Your task to perform on an android device: turn off airplane mode Image 0: 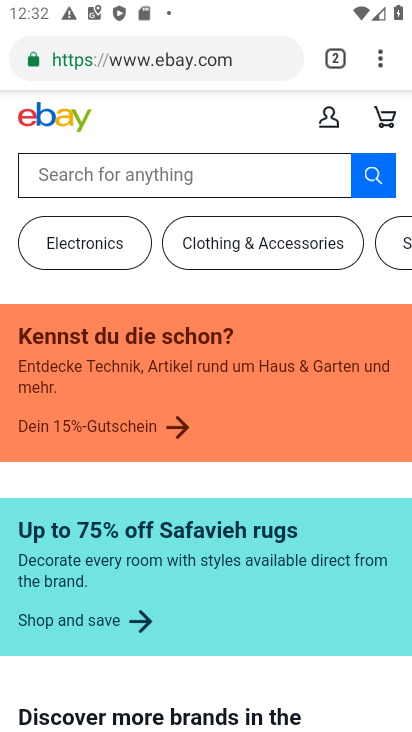
Step 0: press home button
Your task to perform on an android device: turn off airplane mode Image 1: 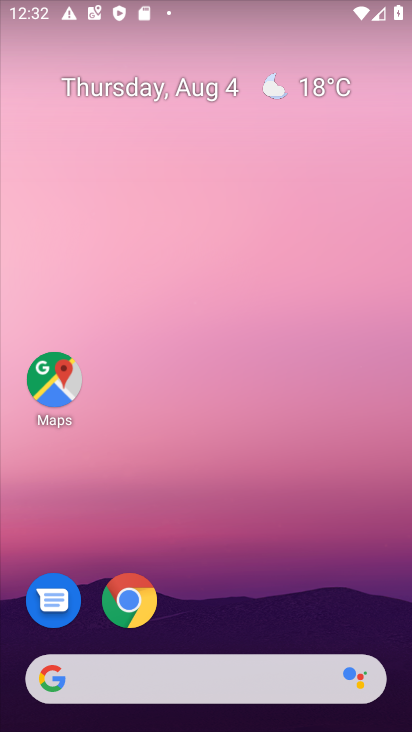
Step 1: drag from (157, 663) to (282, 68)
Your task to perform on an android device: turn off airplane mode Image 2: 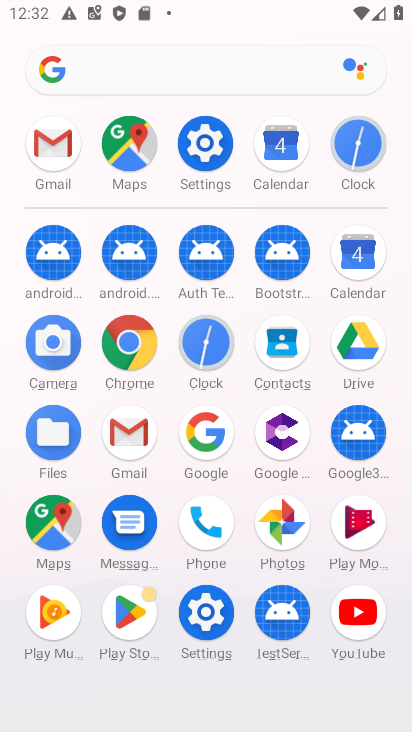
Step 2: click (207, 144)
Your task to perform on an android device: turn off airplane mode Image 3: 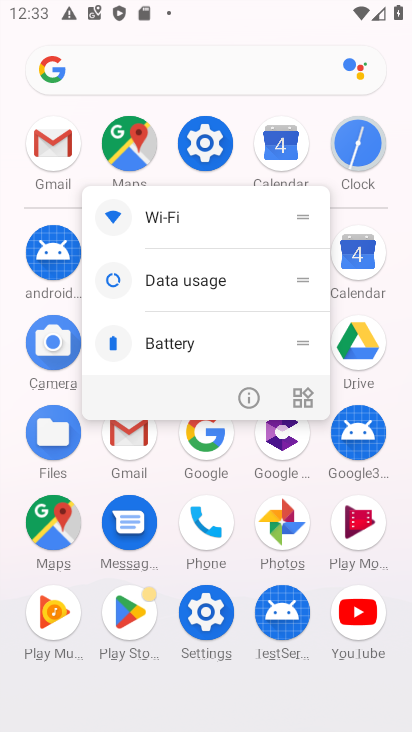
Step 3: click (207, 144)
Your task to perform on an android device: turn off airplane mode Image 4: 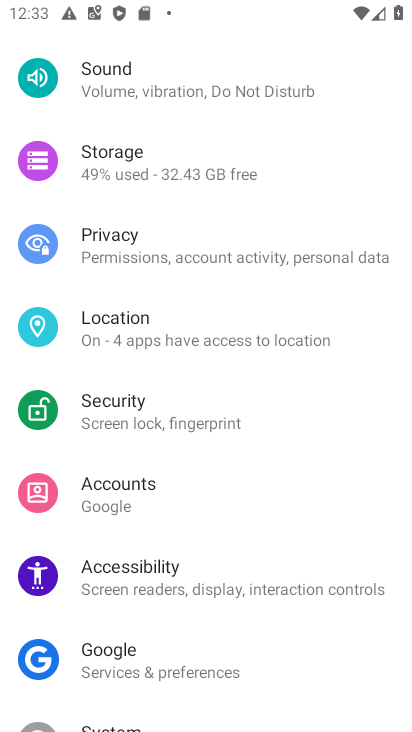
Step 4: drag from (309, 161) to (275, 625)
Your task to perform on an android device: turn off airplane mode Image 5: 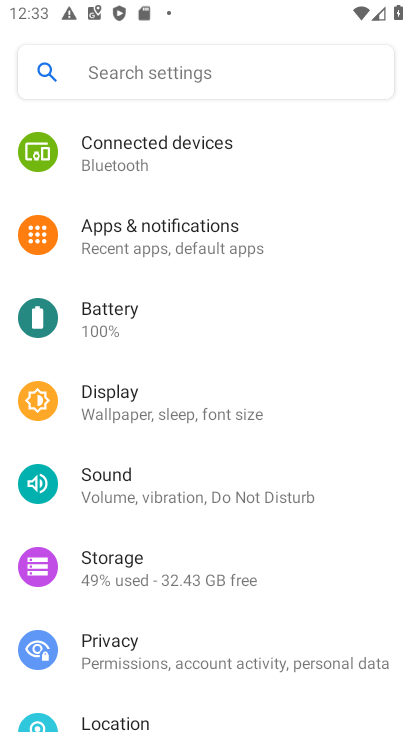
Step 5: drag from (269, 178) to (244, 557)
Your task to perform on an android device: turn off airplane mode Image 6: 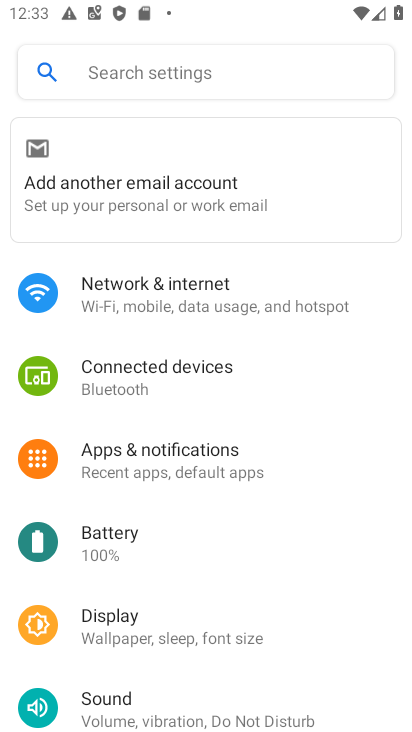
Step 6: click (164, 291)
Your task to perform on an android device: turn off airplane mode Image 7: 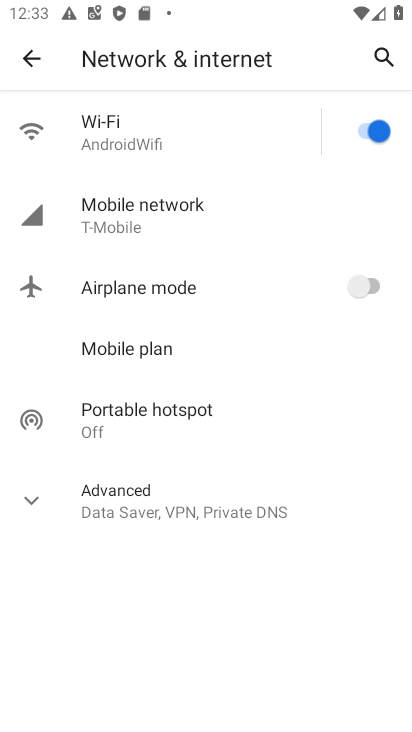
Step 7: task complete